Your task to perform on an android device: Show me productivity apps on the Play Store Image 0: 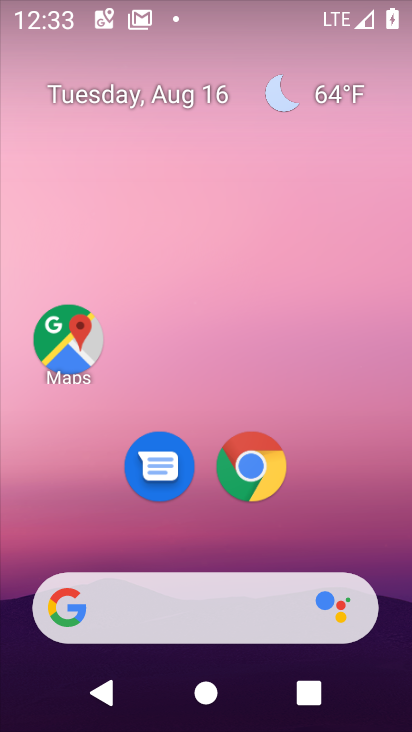
Step 0: drag from (230, 571) to (217, 207)
Your task to perform on an android device: Show me productivity apps on the Play Store Image 1: 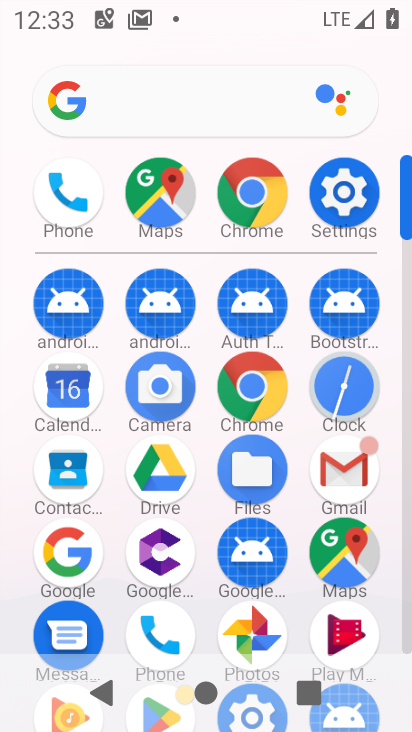
Step 1: drag from (201, 605) to (214, 325)
Your task to perform on an android device: Show me productivity apps on the Play Store Image 2: 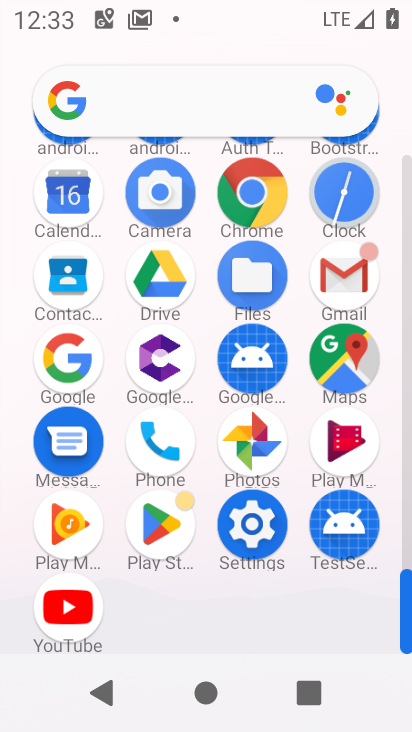
Step 2: click (152, 533)
Your task to perform on an android device: Show me productivity apps on the Play Store Image 3: 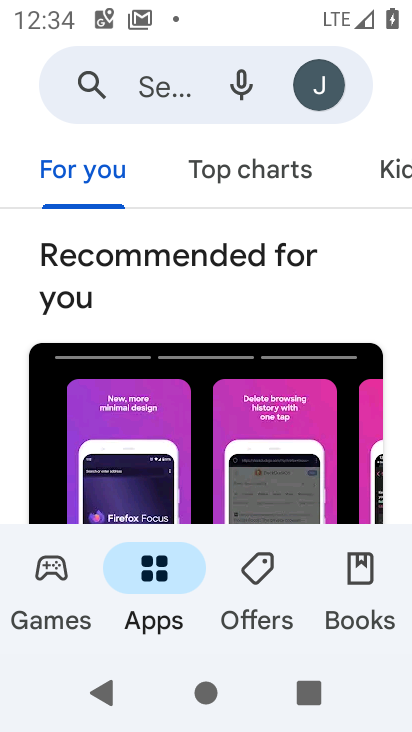
Step 3: task complete